Your task to perform on an android device: Turn on the flashlight Image 0: 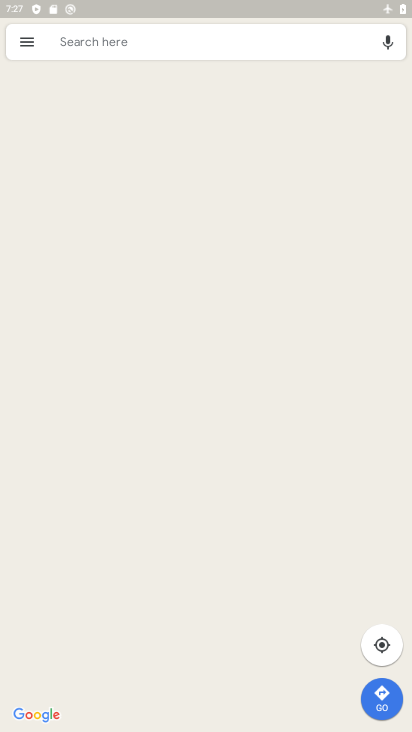
Step 0: press home button
Your task to perform on an android device: Turn on the flashlight Image 1: 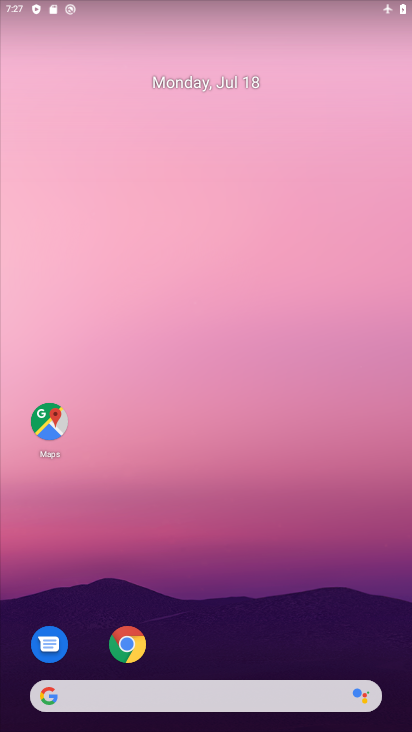
Step 1: task complete